Your task to perform on an android device: What's on my calendar today? Image 0: 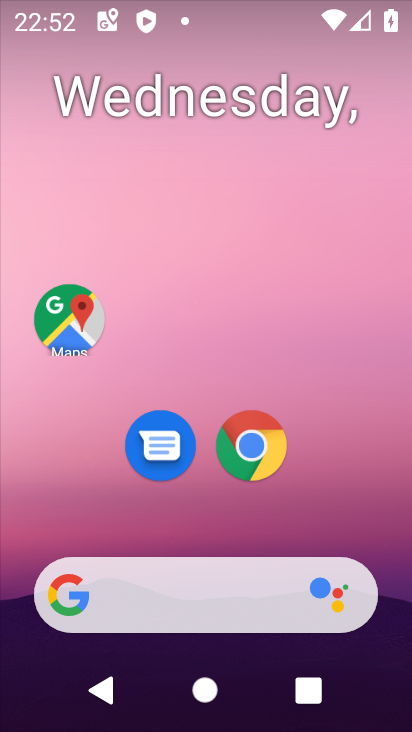
Step 0: drag from (302, 516) to (343, 214)
Your task to perform on an android device: What's on my calendar today? Image 1: 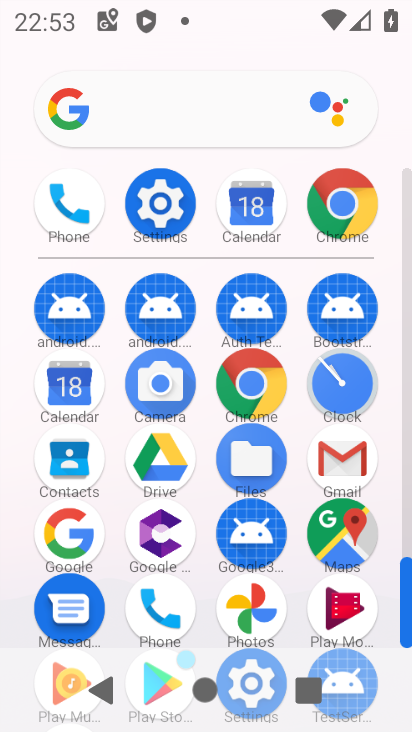
Step 1: click (62, 381)
Your task to perform on an android device: What's on my calendar today? Image 2: 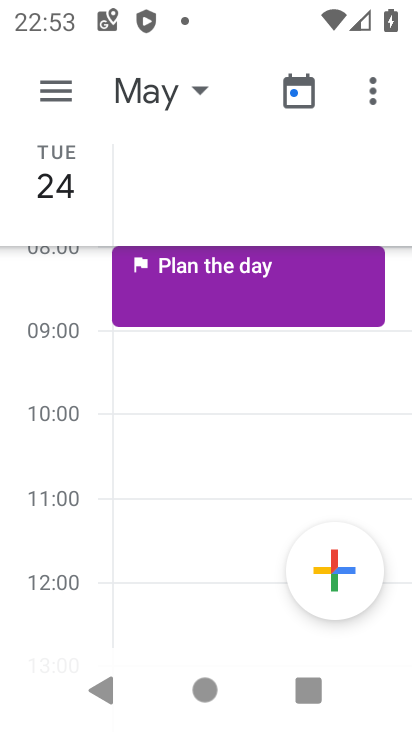
Step 2: click (64, 90)
Your task to perform on an android device: What's on my calendar today? Image 3: 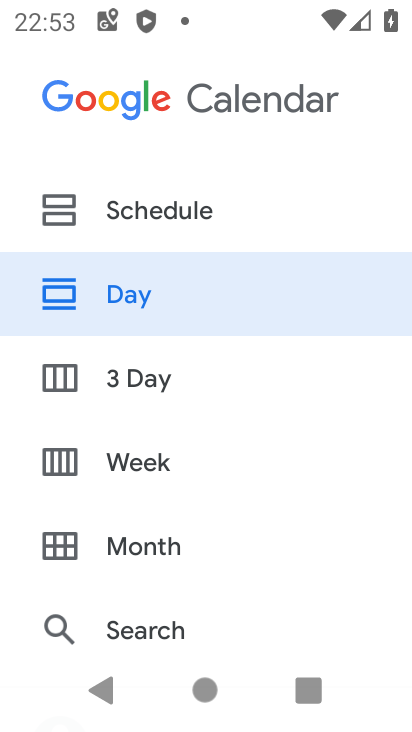
Step 3: click (163, 467)
Your task to perform on an android device: What's on my calendar today? Image 4: 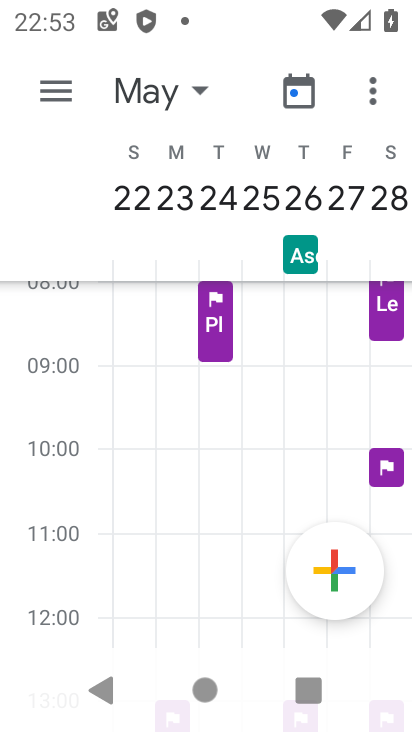
Step 4: drag from (151, 185) to (369, 179)
Your task to perform on an android device: What's on my calendar today? Image 5: 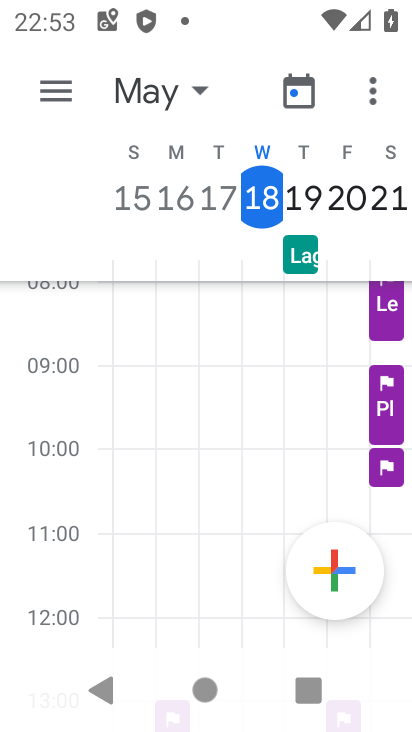
Step 5: click (196, 196)
Your task to perform on an android device: What's on my calendar today? Image 6: 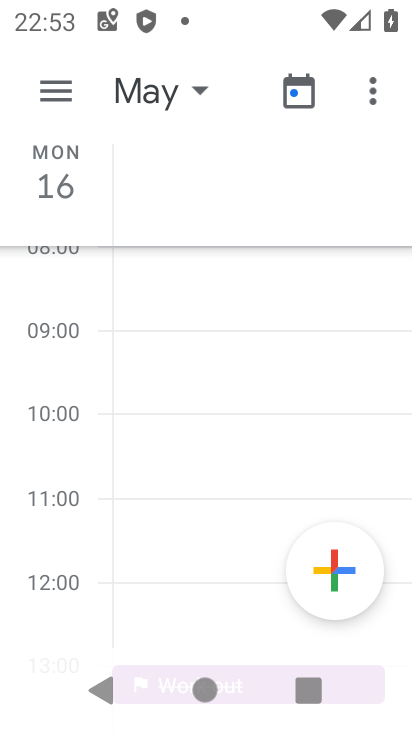
Step 6: click (305, 189)
Your task to perform on an android device: What's on my calendar today? Image 7: 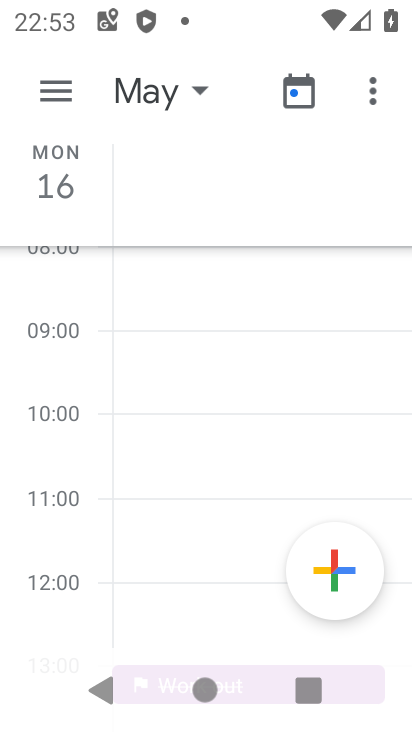
Step 7: task complete